Your task to perform on an android device: turn on the 12-hour format for clock Image 0: 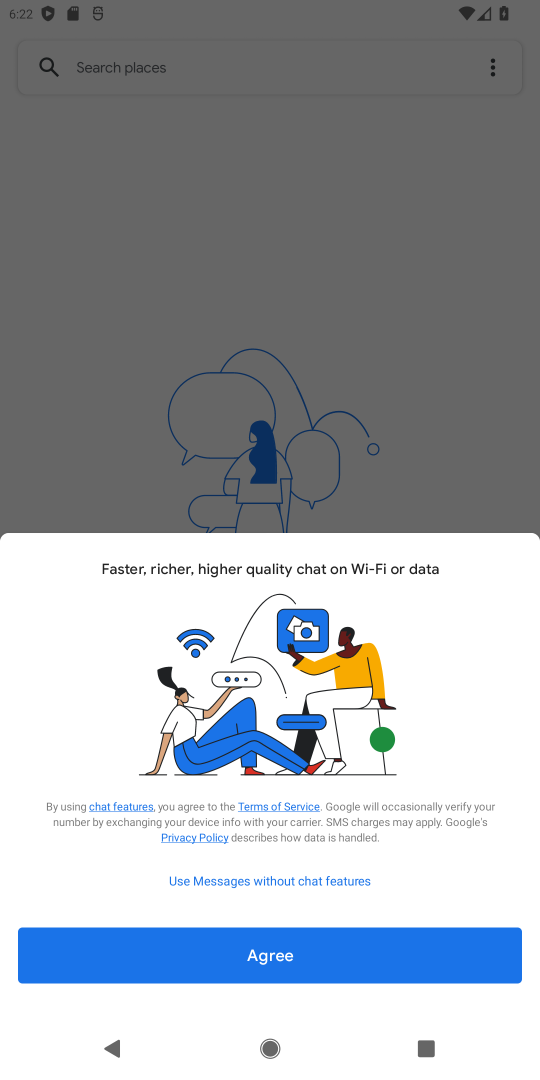
Step 0: press home button
Your task to perform on an android device: turn on the 12-hour format for clock Image 1: 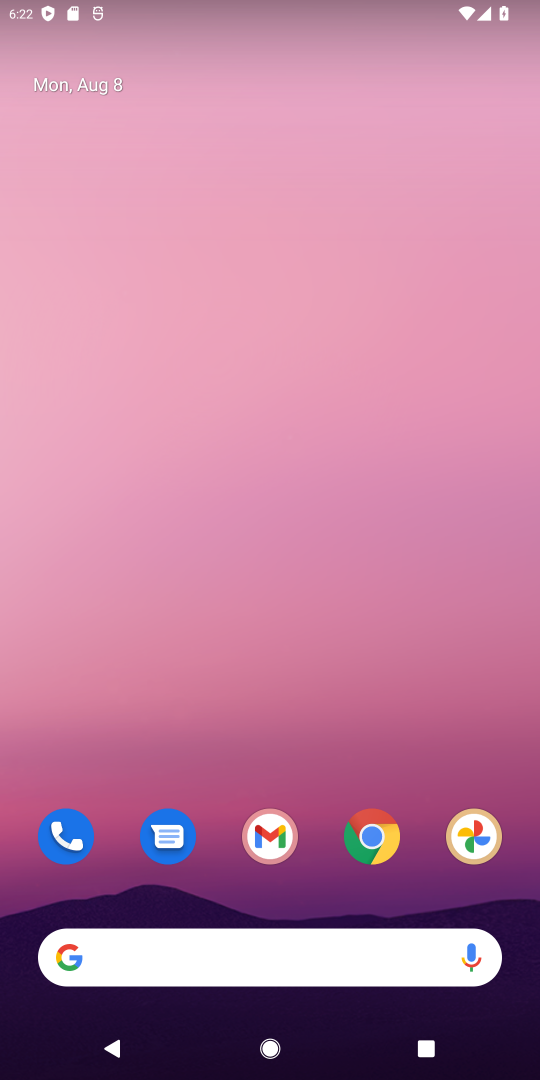
Step 1: drag from (303, 861) to (360, 239)
Your task to perform on an android device: turn on the 12-hour format for clock Image 2: 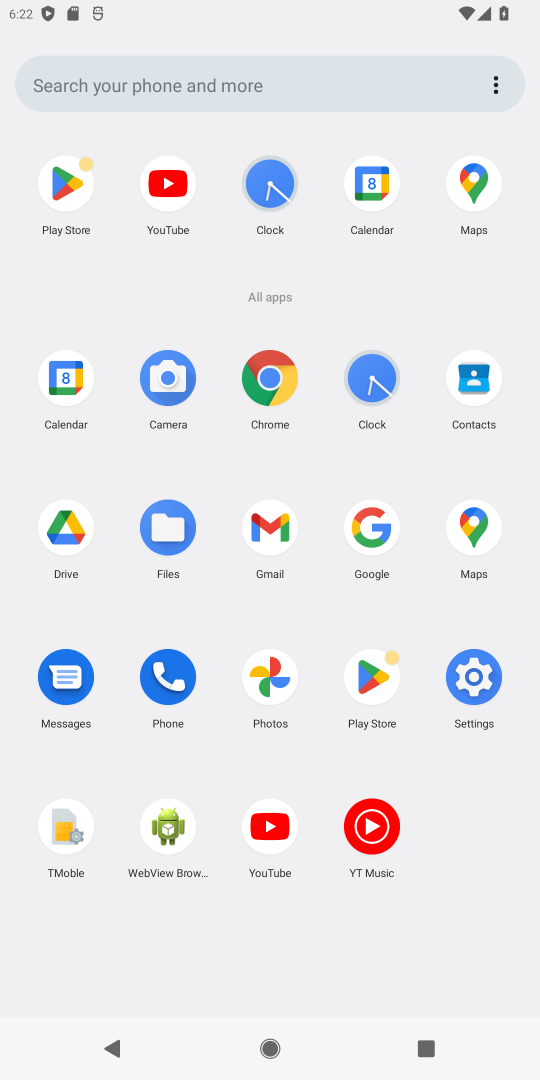
Step 2: click (366, 398)
Your task to perform on an android device: turn on the 12-hour format for clock Image 3: 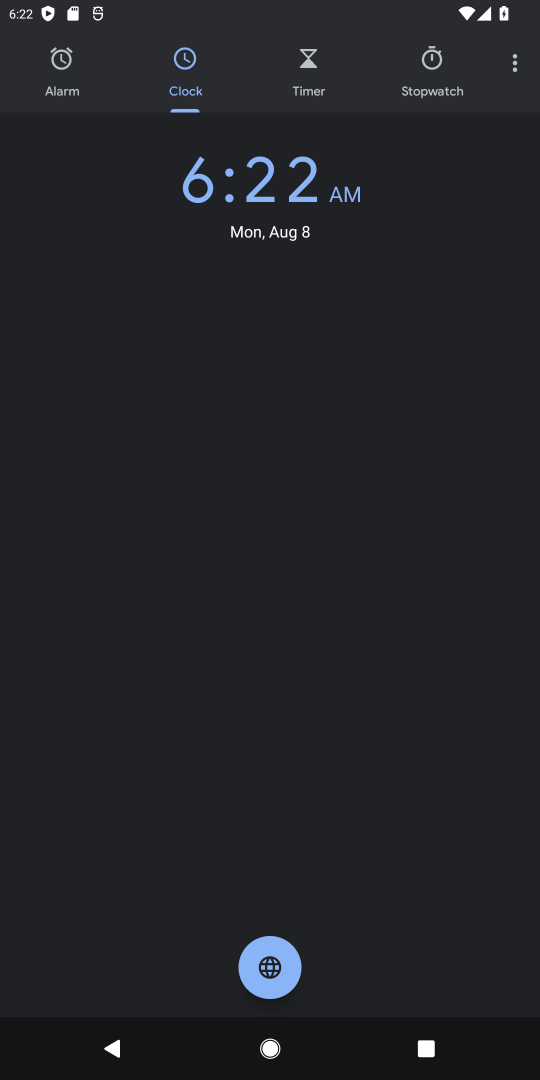
Step 3: click (513, 68)
Your task to perform on an android device: turn on the 12-hour format for clock Image 4: 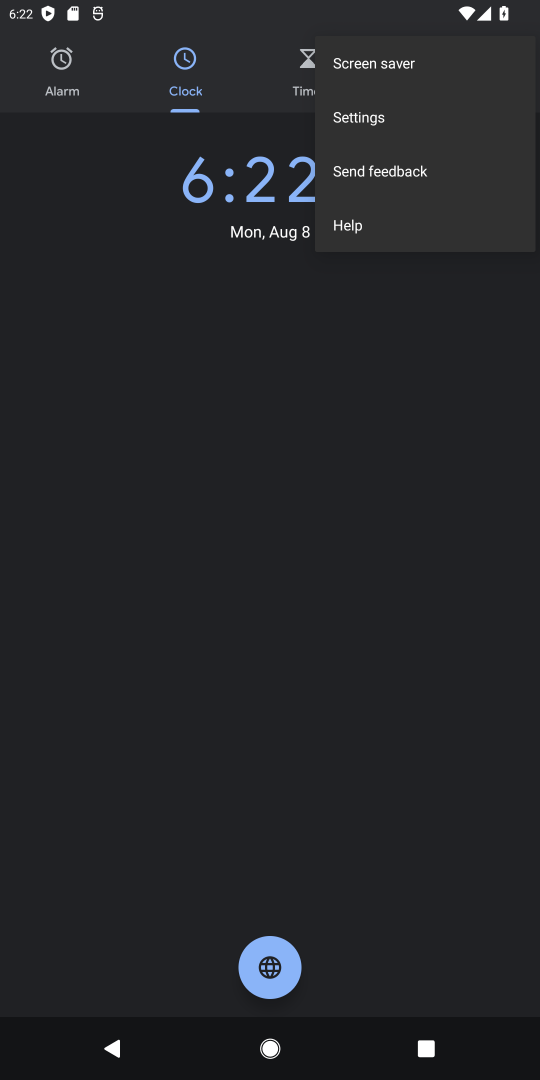
Step 4: click (395, 118)
Your task to perform on an android device: turn on the 12-hour format for clock Image 5: 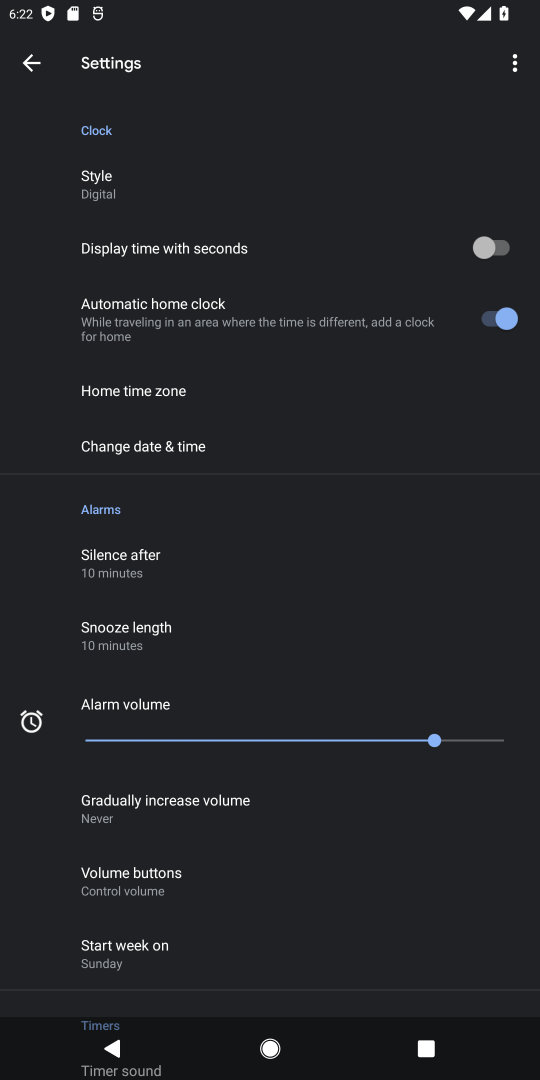
Step 5: click (225, 458)
Your task to perform on an android device: turn on the 12-hour format for clock Image 6: 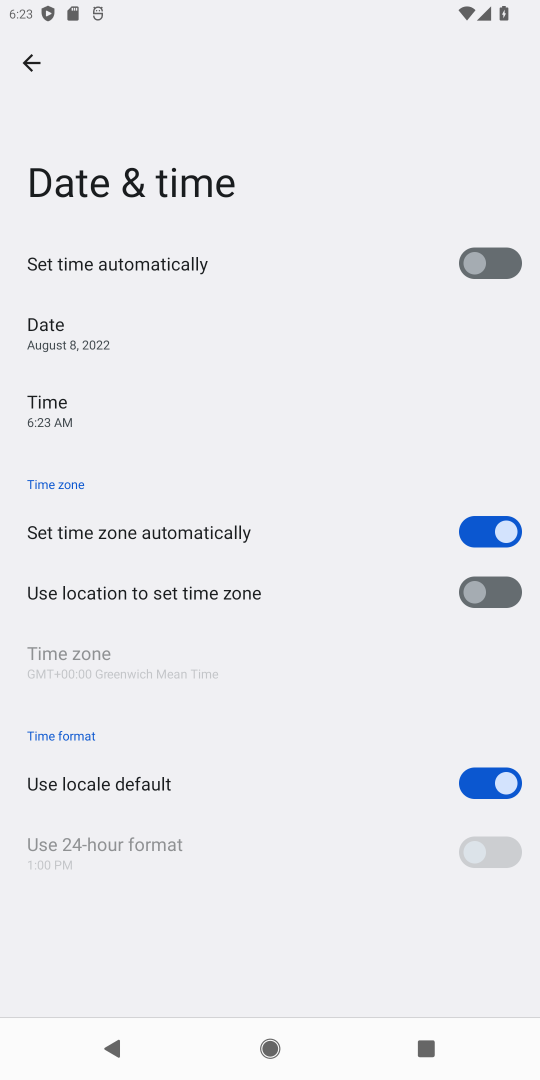
Step 6: task complete